Your task to perform on an android device: turn off priority inbox in the gmail app Image 0: 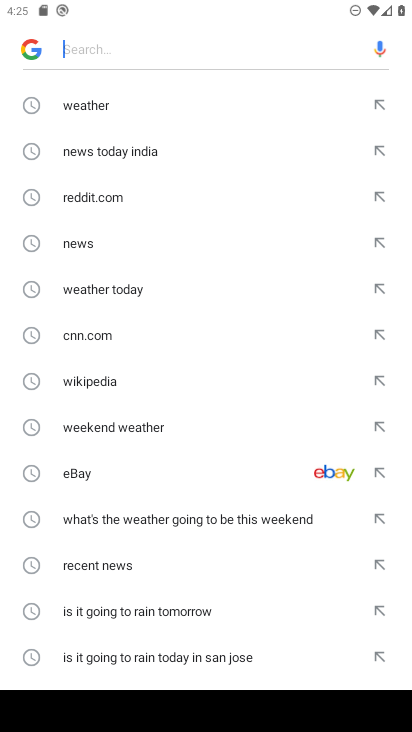
Step 0: press home button
Your task to perform on an android device: turn off priority inbox in the gmail app Image 1: 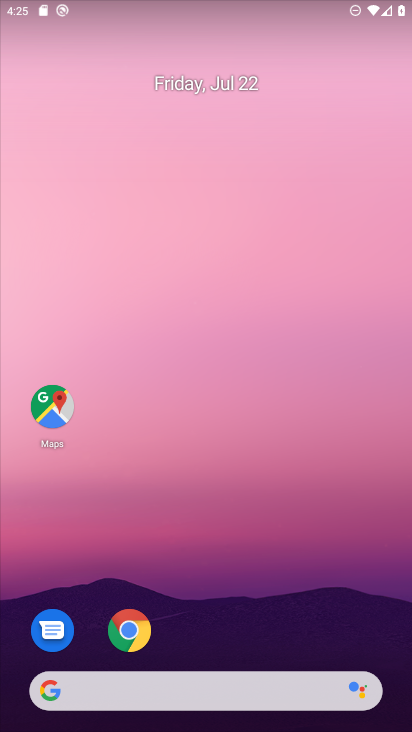
Step 1: drag from (220, 613) to (297, 1)
Your task to perform on an android device: turn off priority inbox in the gmail app Image 2: 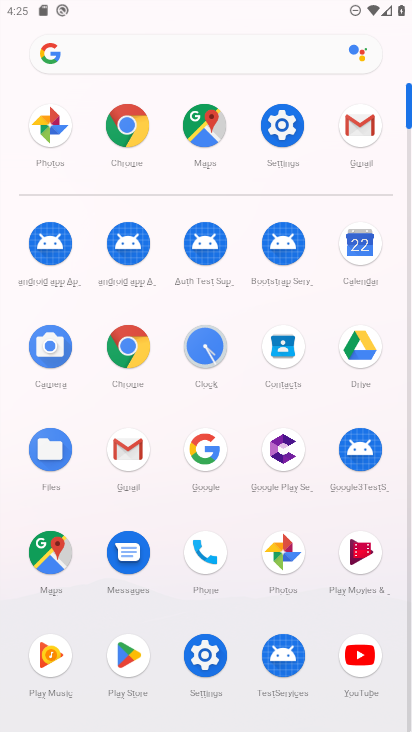
Step 2: click (120, 465)
Your task to perform on an android device: turn off priority inbox in the gmail app Image 3: 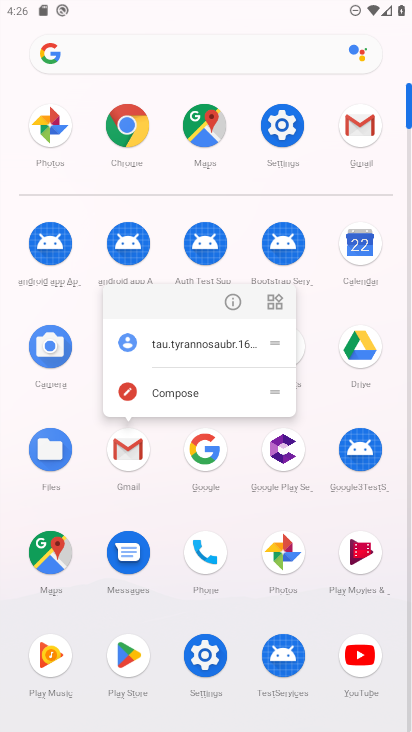
Step 3: click (137, 464)
Your task to perform on an android device: turn off priority inbox in the gmail app Image 4: 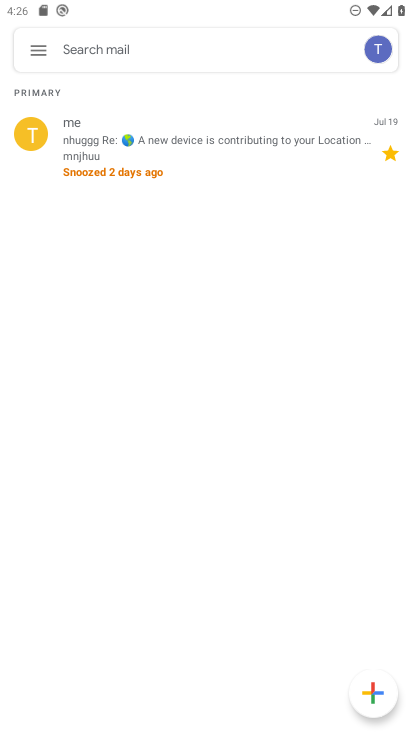
Step 4: click (35, 49)
Your task to perform on an android device: turn off priority inbox in the gmail app Image 5: 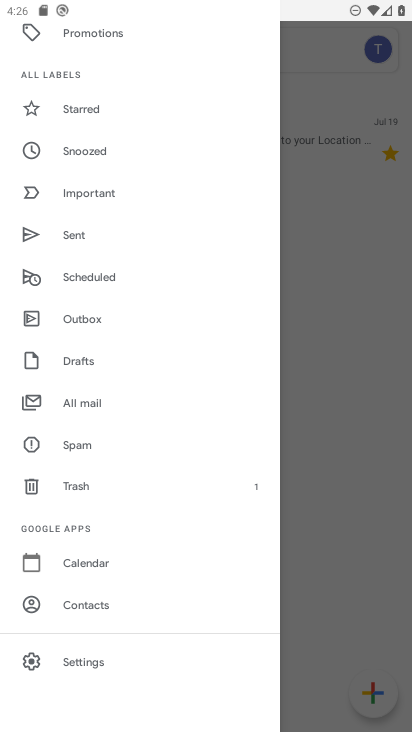
Step 5: drag from (81, 660) to (92, 473)
Your task to perform on an android device: turn off priority inbox in the gmail app Image 6: 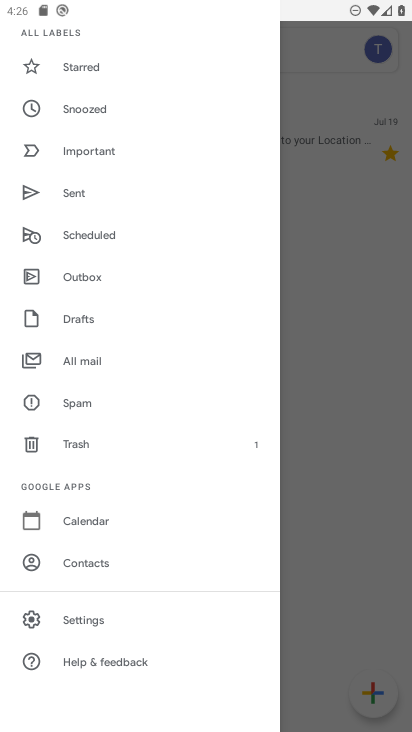
Step 6: click (86, 613)
Your task to perform on an android device: turn off priority inbox in the gmail app Image 7: 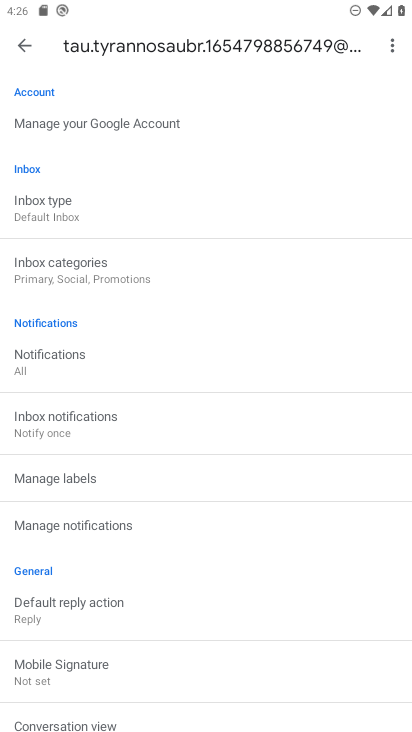
Step 7: click (71, 207)
Your task to perform on an android device: turn off priority inbox in the gmail app Image 8: 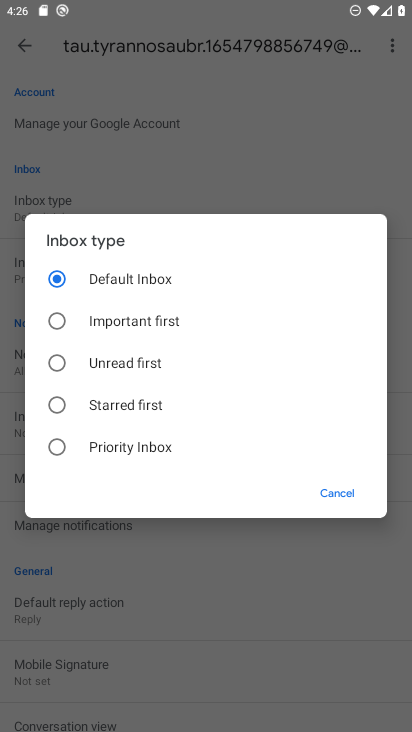
Step 8: task complete